Your task to perform on an android device: make emails show in primary in the gmail app Image 0: 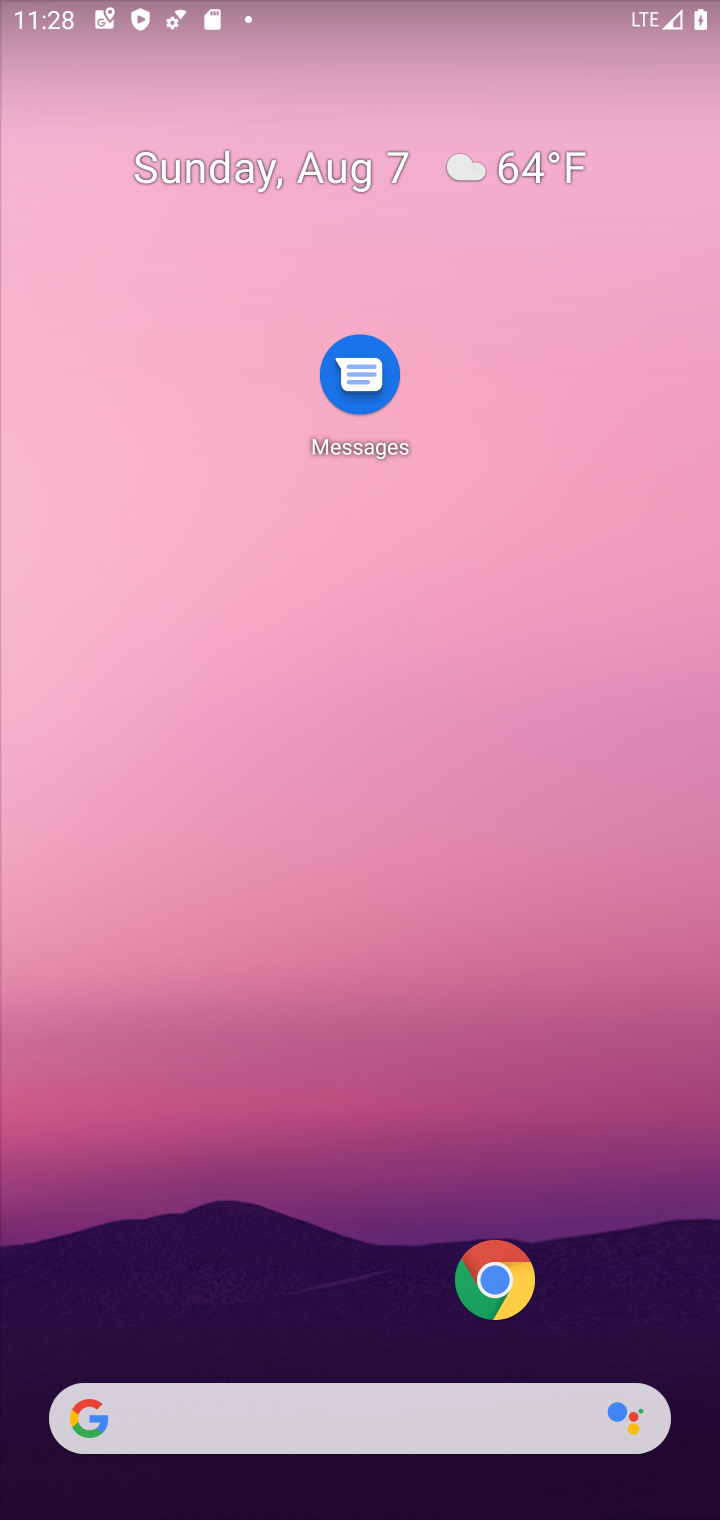
Step 0: drag from (255, 990) to (381, 91)
Your task to perform on an android device: make emails show in primary in the gmail app Image 1: 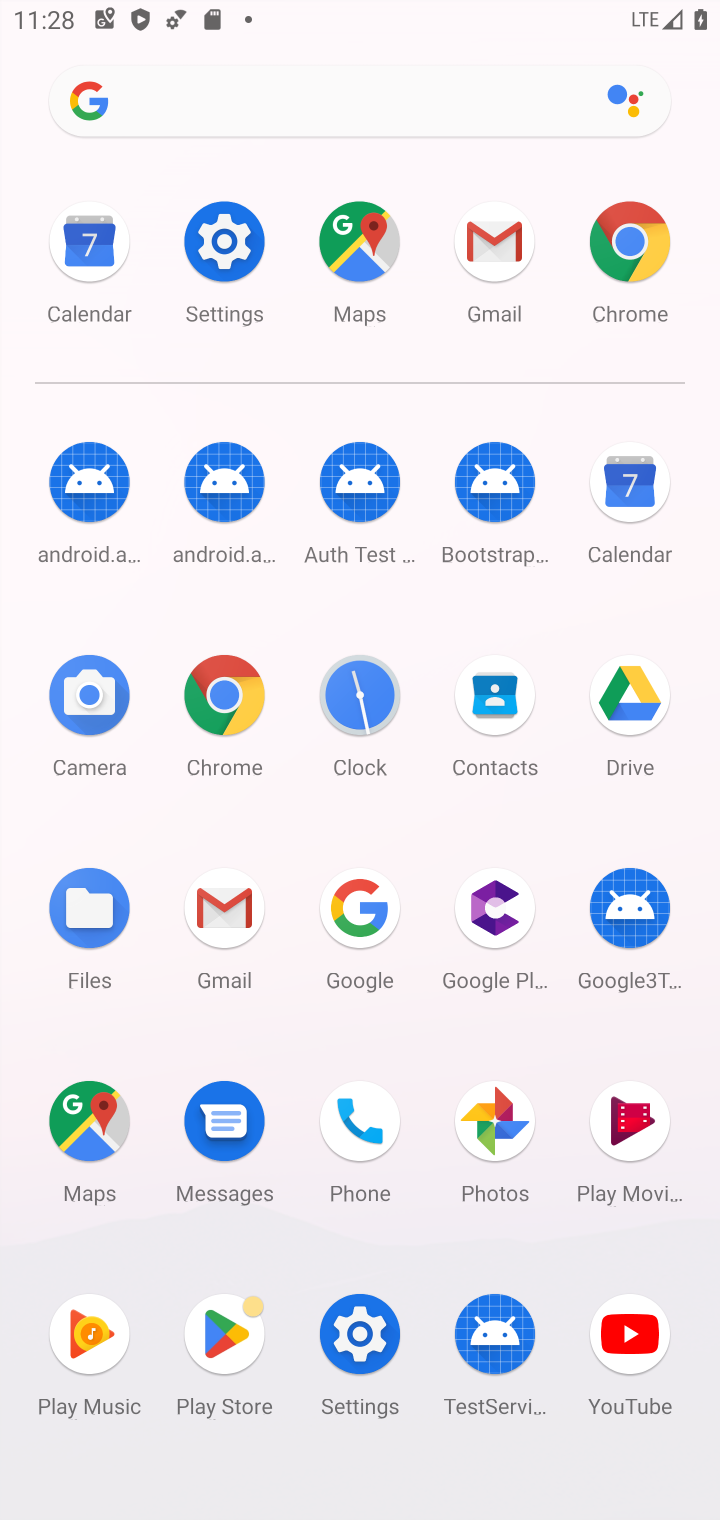
Step 1: click (490, 239)
Your task to perform on an android device: make emails show in primary in the gmail app Image 2: 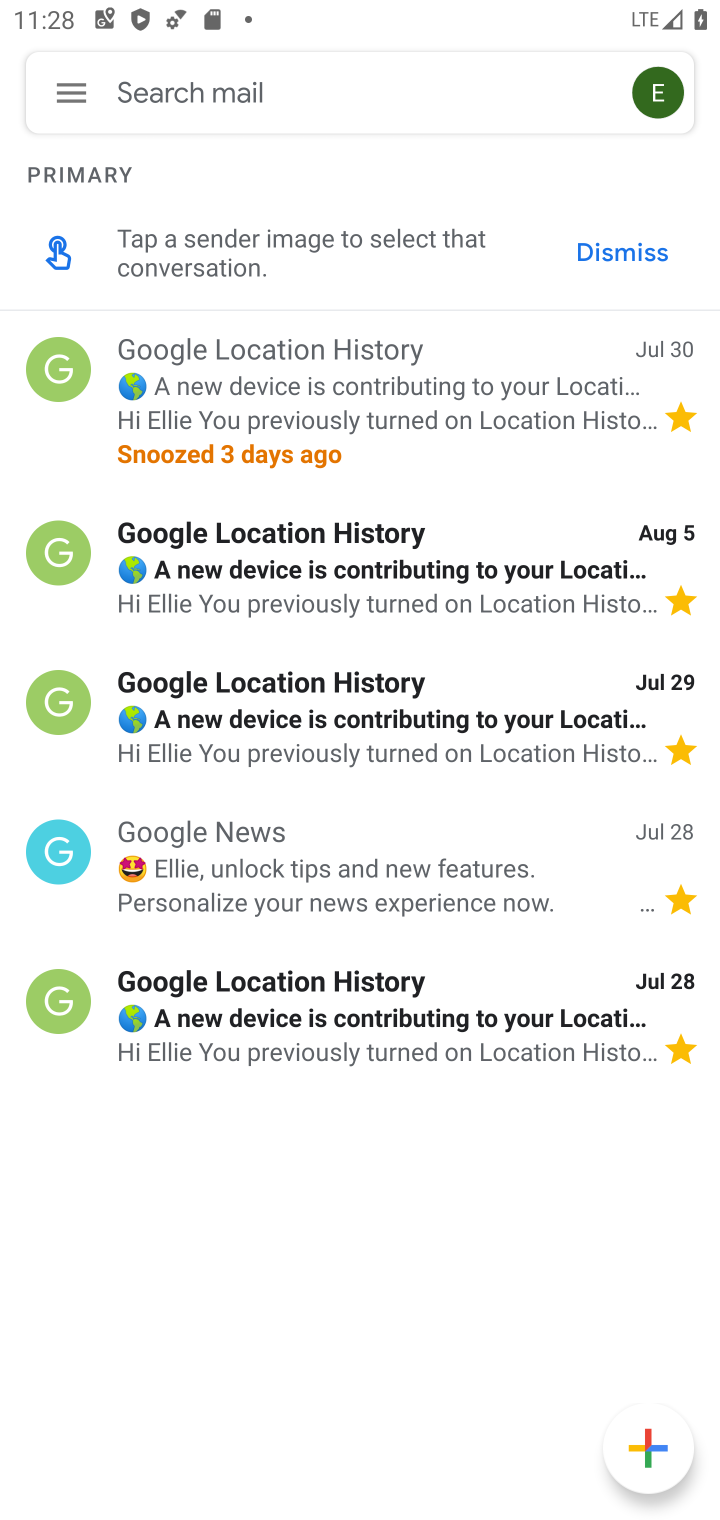
Step 2: click (71, 96)
Your task to perform on an android device: make emails show in primary in the gmail app Image 3: 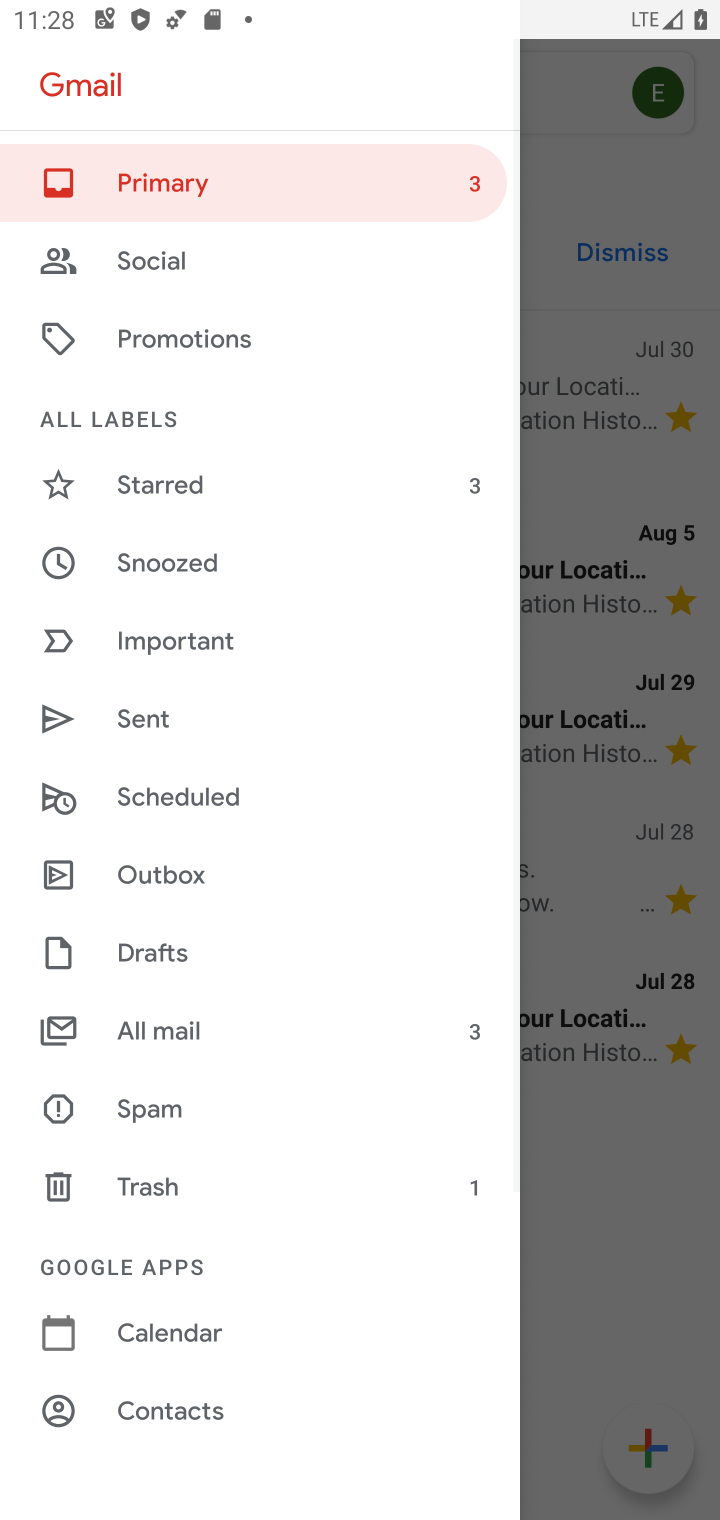
Step 3: drag from (156, 1386) to (241, 50)
Your task to perform on an android device: make emails show in primary in the gmail app Image 4: 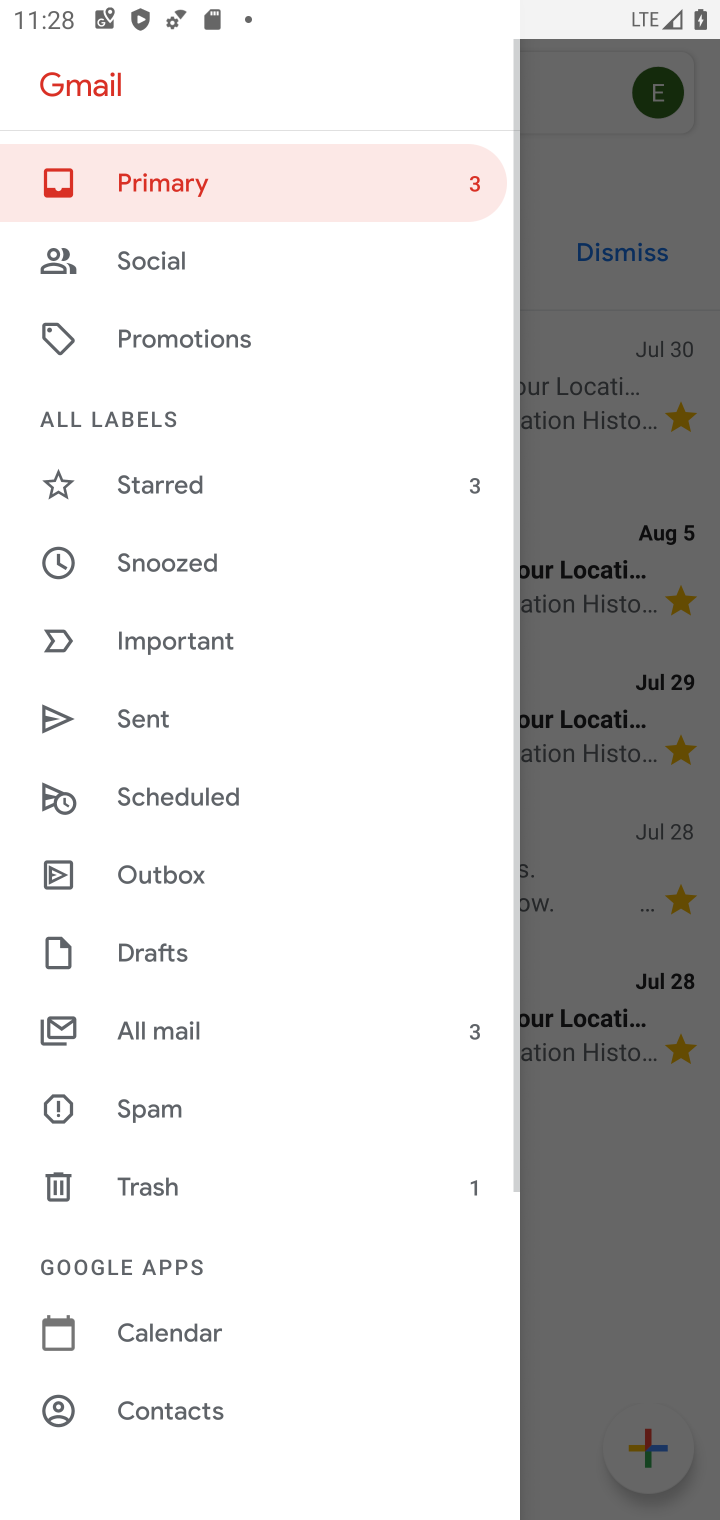
Step 4: drag from (175, 1389) to (447, 223)
Your task to perform on an android device: make emails show in primary in the gmail app Image 5: 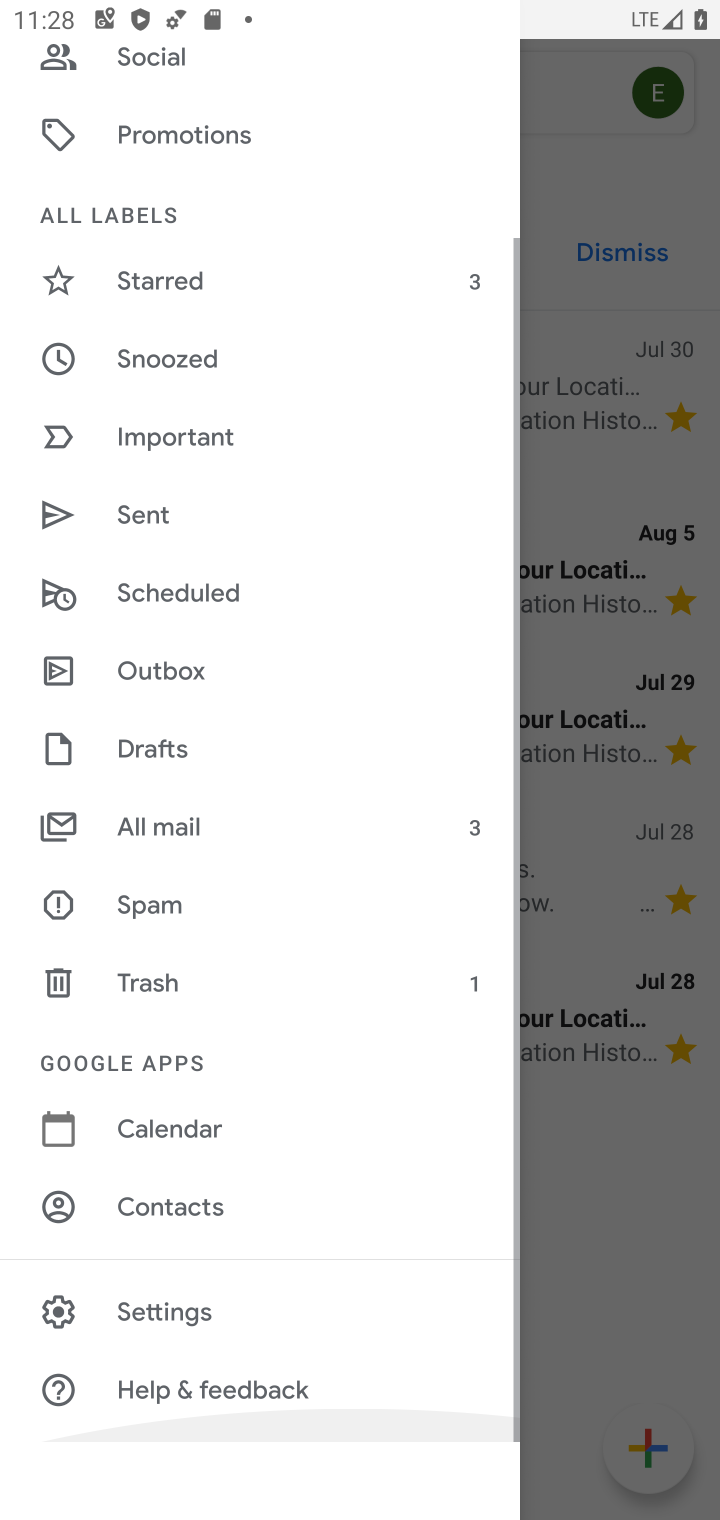
Step 5: click (137, 1331)
Your task to perform on an android device: make emails show in primary in the gmail app Image 6: 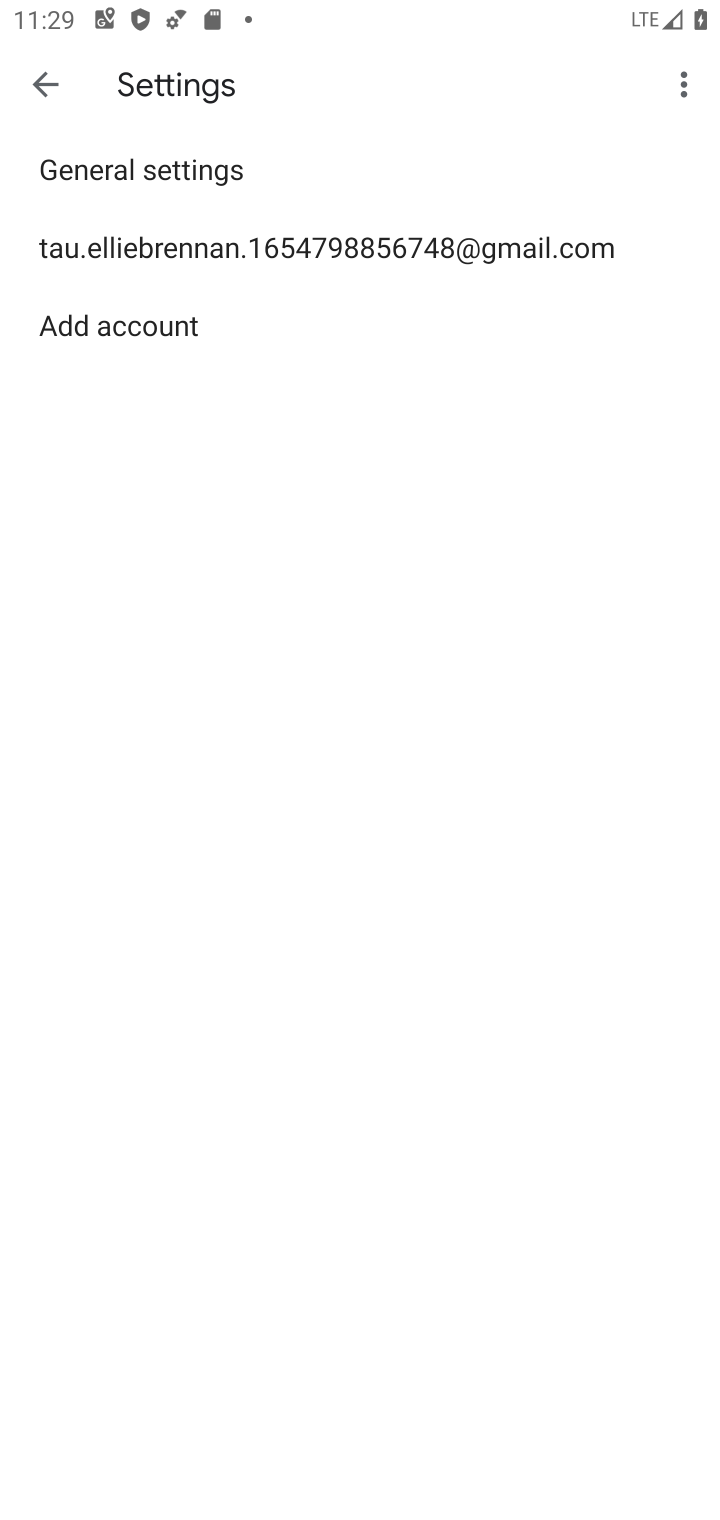
Step 6: click (299, 261)
Your task to perform on an android device: make emails show in primary in the gmail app Image 7: 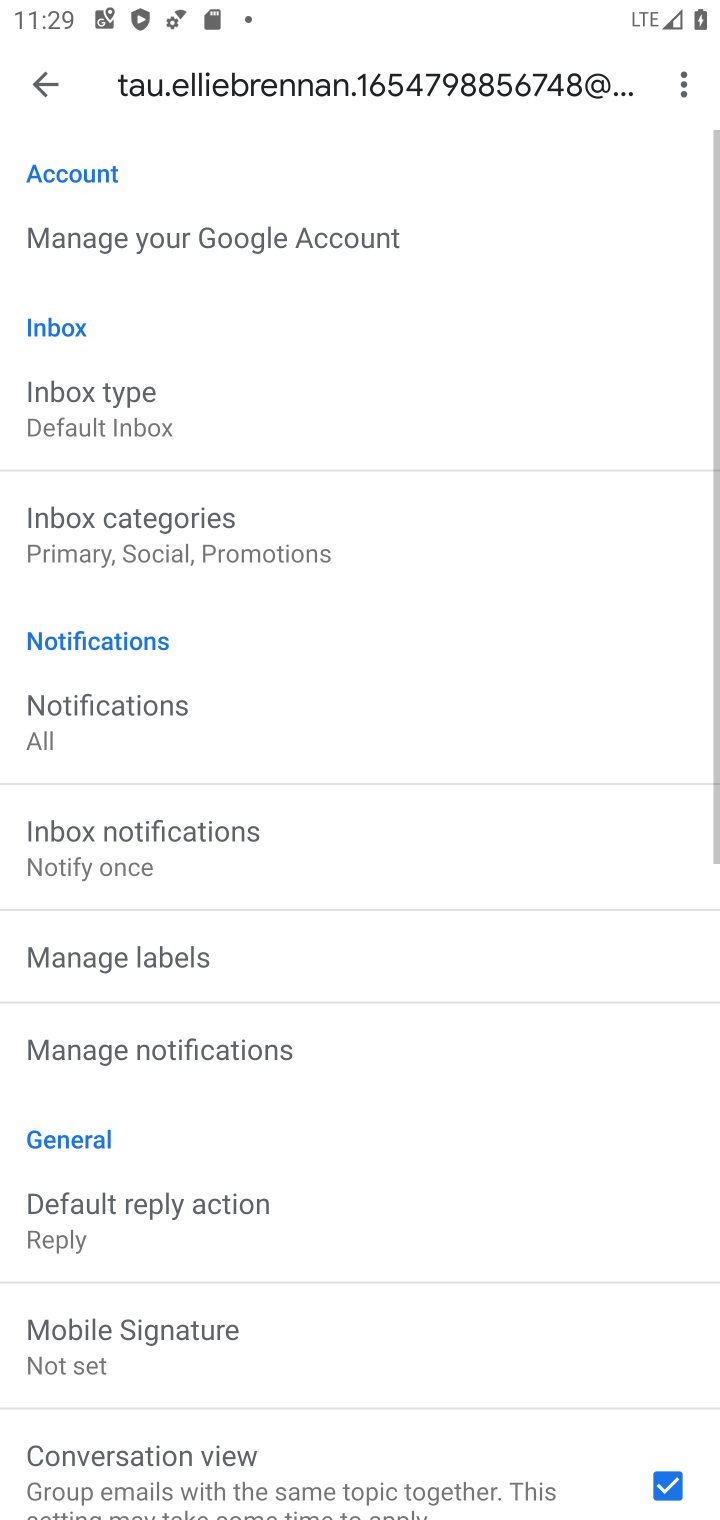
Step 7: click (189, 558)
Your task to perform on an android device: make emails show in primary in the gmail app Image 8: 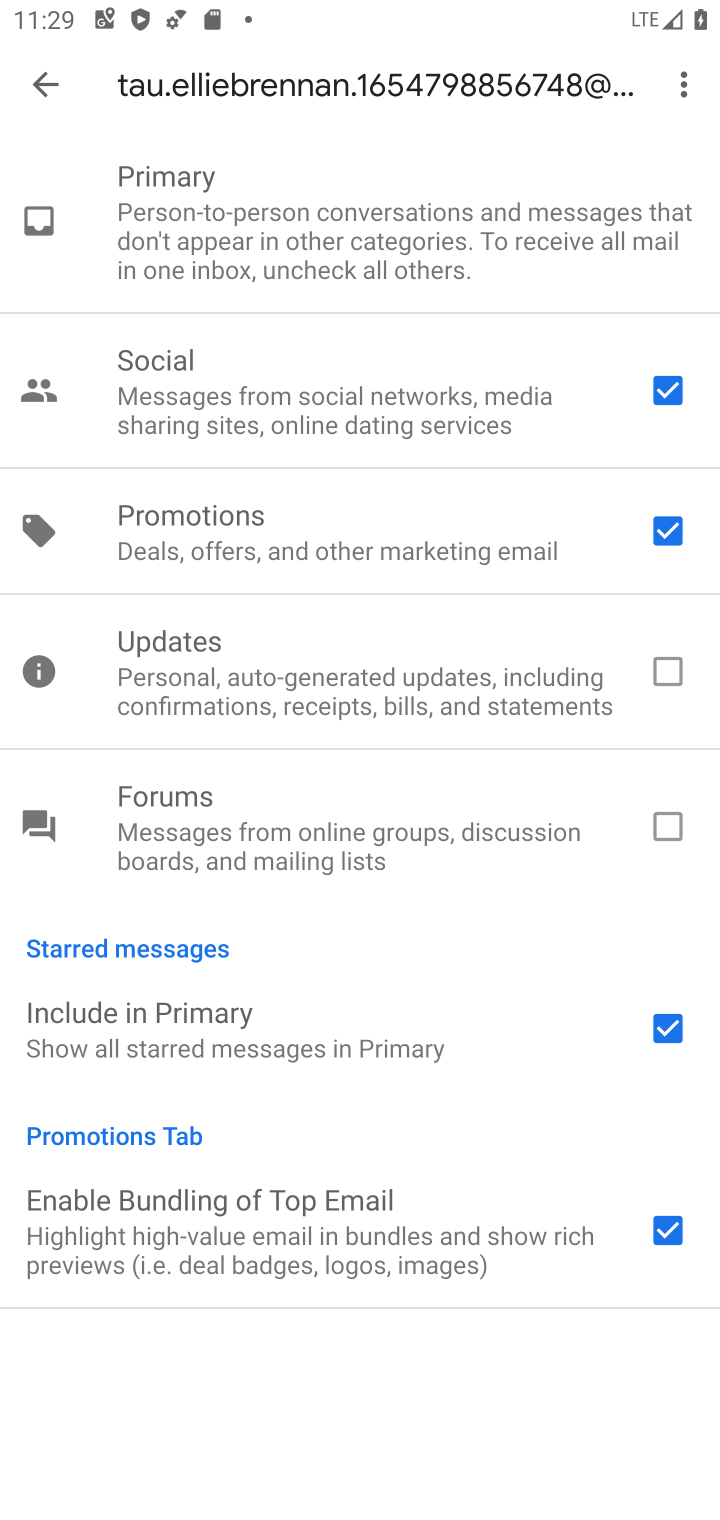
Step 8: click (667, 835)
Your task to perform on an android device: make emails show in primary in the gmail app Image 9: 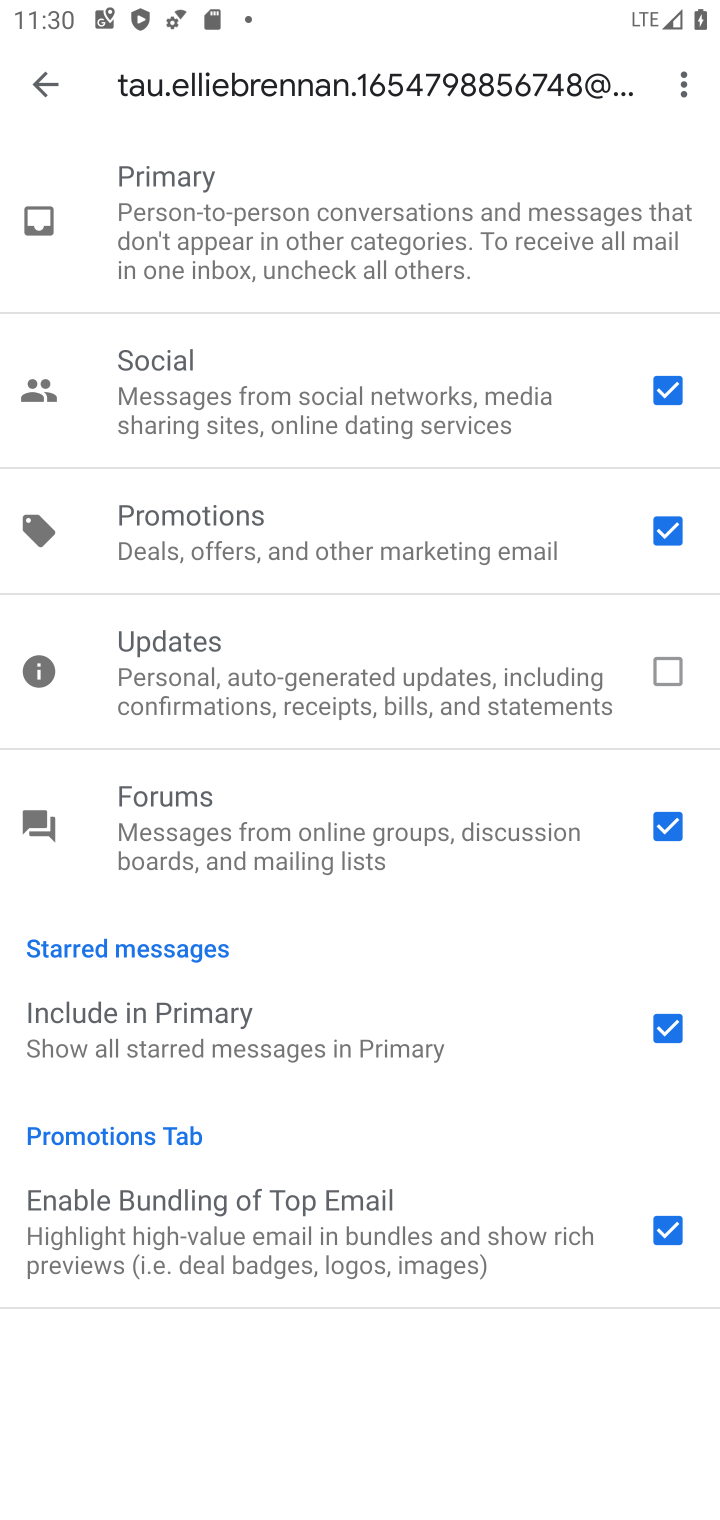
Step 9: task complete